Your task to perform on an android device: move an email to a new category in the gmail app Image 0: 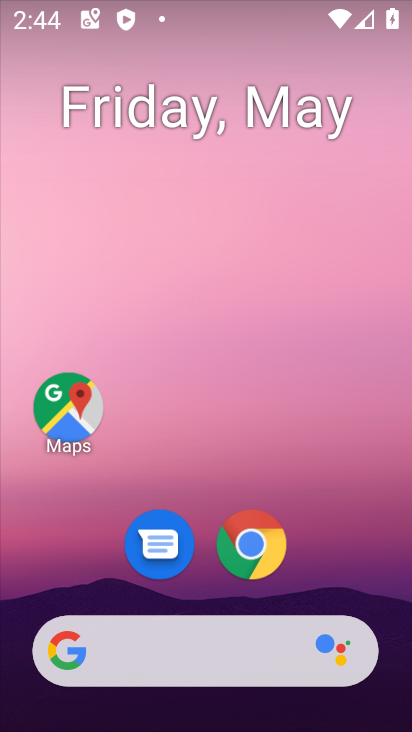
Step 0: drag from (203, 591) to (231, 202)
Your task to perform on an android device: move an email to a new category in the gmail app Image 1: 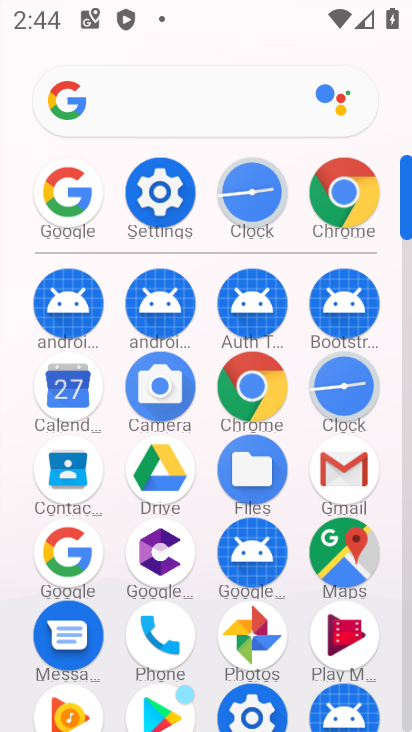
Step 1: click (342, 483)
Your task to perform on an android device: move an email to a new category in the gmail app Image 2: 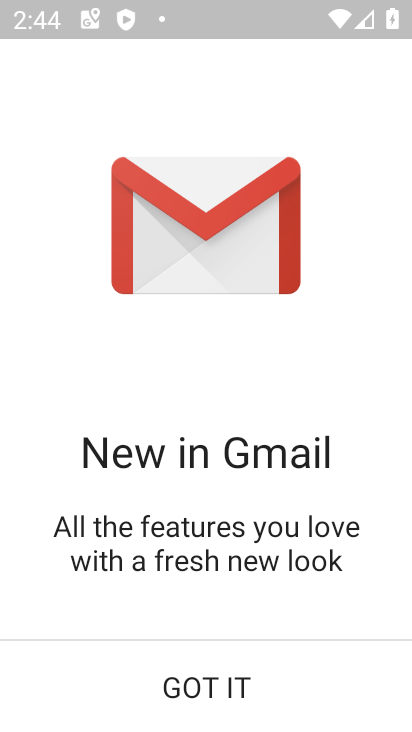
Step 2: click (217, 660)
Your task to perform on an android device: move an email to a new category in the gmail app Image 3: 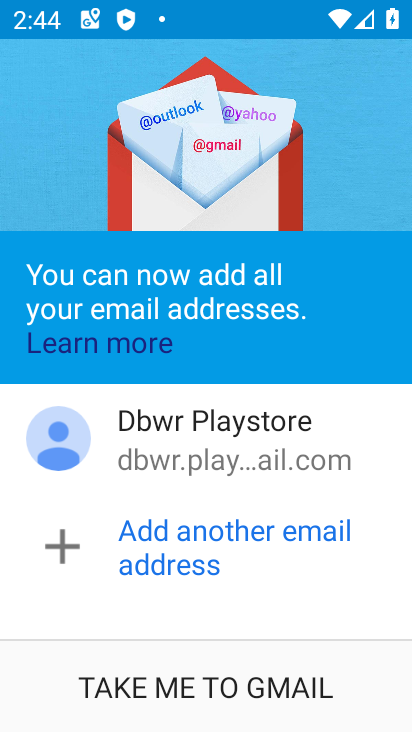
Step 3: click (210, 655)
Your task to perform on an android device: move an email to a new category in the gmail app Image 4: 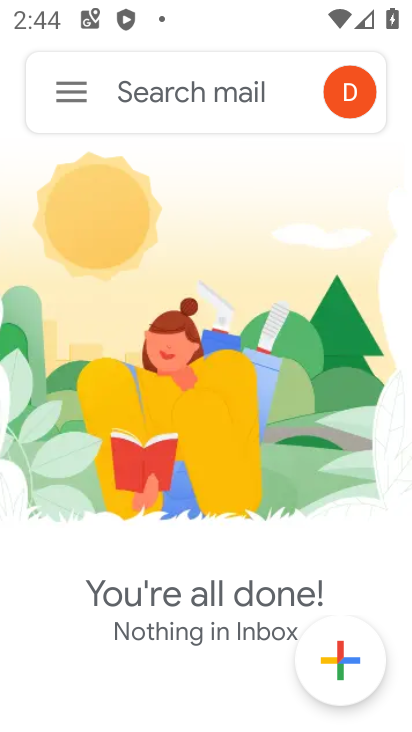
Step 4: click (81, 113)
Your task to perform on an android device: move an email to a new category in the gmail app Image 5: 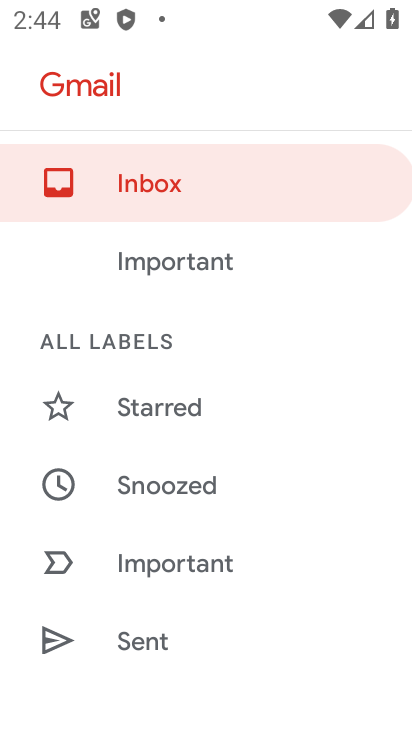
Step 5: drag from (216, 527) to (230, 332)
Your task to perform on an android device: move an email to a new category in the gmail app Image 6: 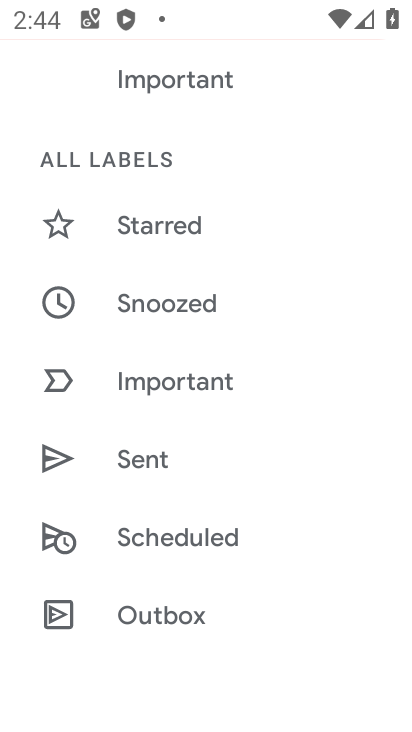
Step 6: drag from (194, 603) to (222, 360)
Your task to perform on an android device: move an email to a new category in the gmail app Image 7: 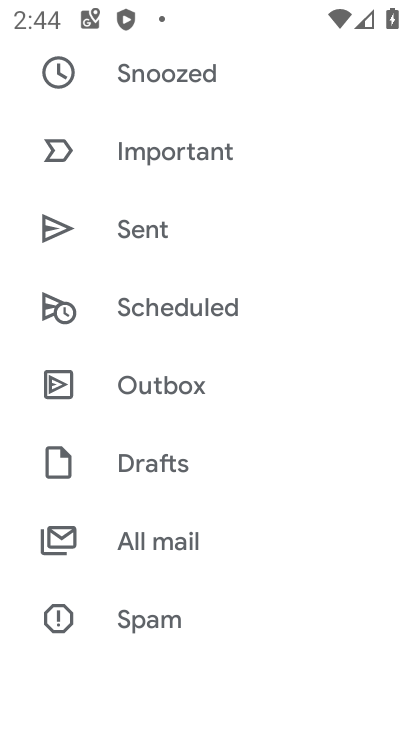
Step 7: click (175, 545)
Your task to perform on an android device: move an email to a new category in the gmail app Image 8: 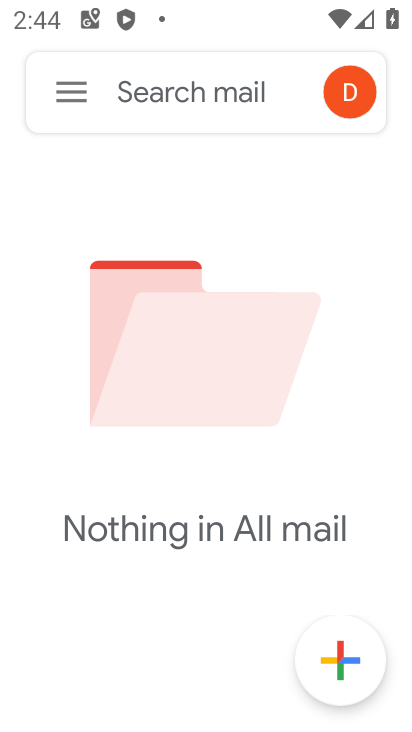
Step 8: task complete